Your task to perform on an android device: What's the weather going to be tomorrow? Image 0: 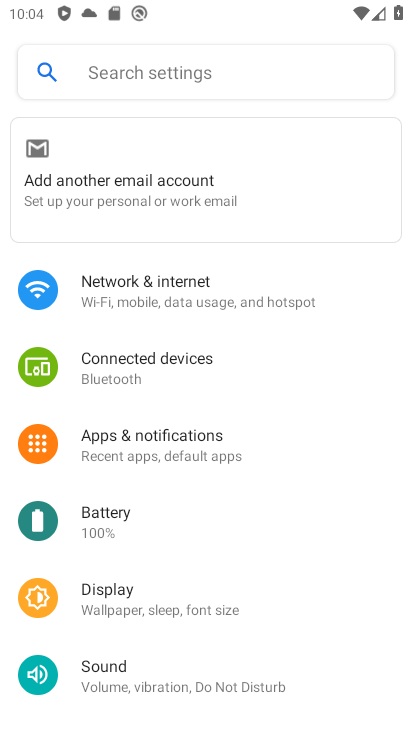
Step 0: press home button
Your task to perform on an android device: What's the weather going to be tomorrow? Image 1: 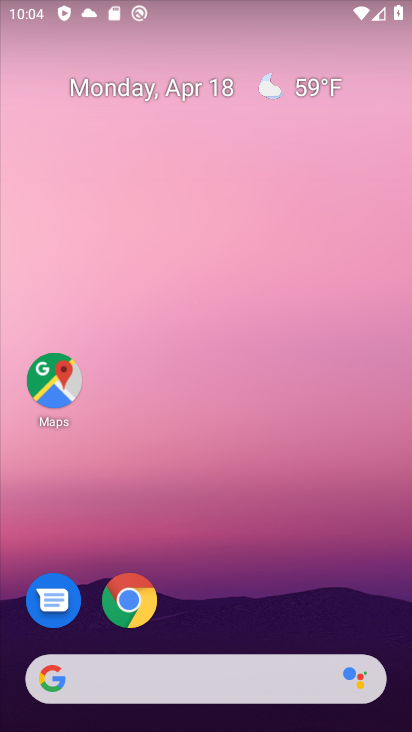
Step 1: click (268, 82)
Your task to perform on an android device: What's the weather going to be tomorrow? Image 2: 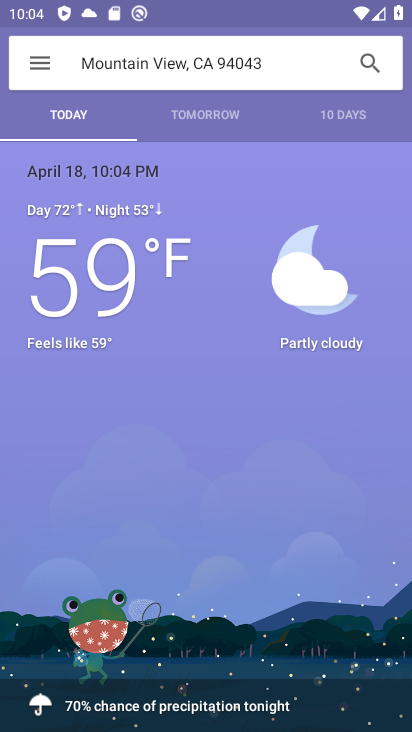
Step 2: click (194, 115)
Your task to perform on an android device: What's the weather going to be tomorrow? Image 3: 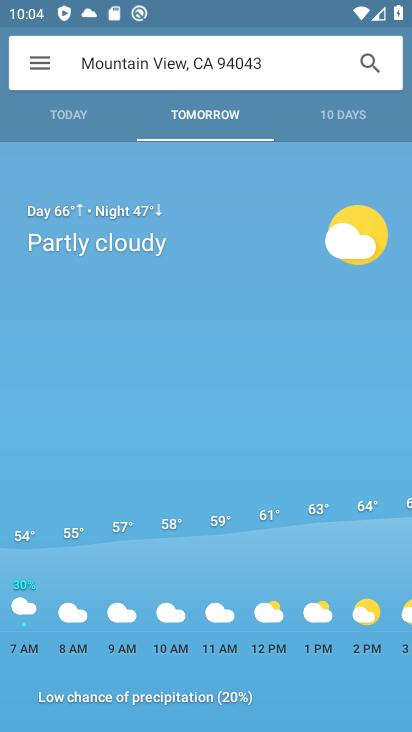
Step 3: task complete